Your task to perform on an android device: empty trash in google photos Image 0: 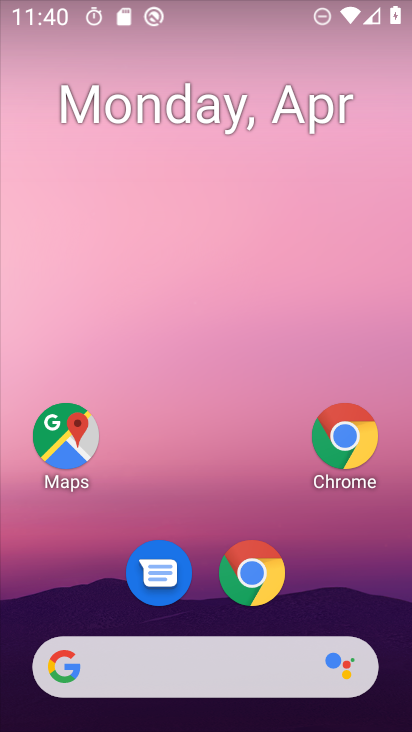
Step 0: drag from (369, 487) to (315, 68)
Your task to perform on an android device: empty trash in google photos Image 1: 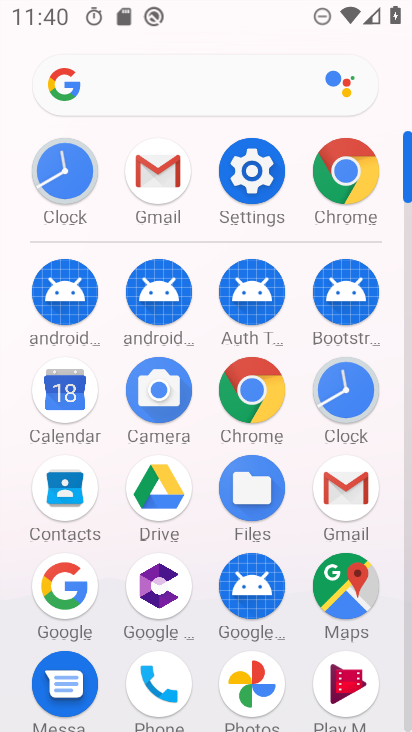
Step 1: click (348, 158)
Your task to perform on an android device: empty trash in google photos Image 2: 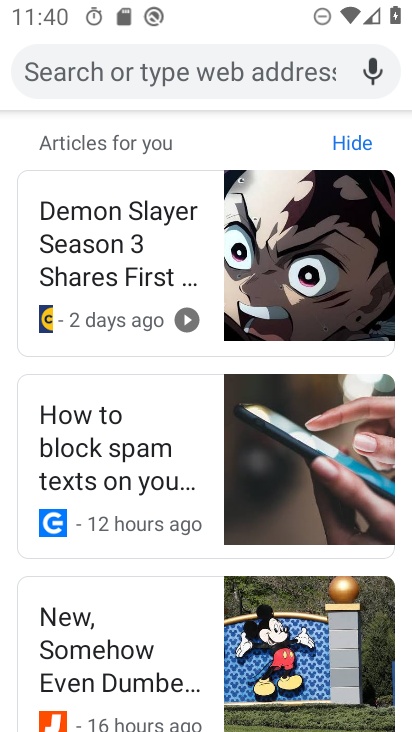
Step 2: press back button
Your task to perform on an android device: empty trash in google photos Image 3: 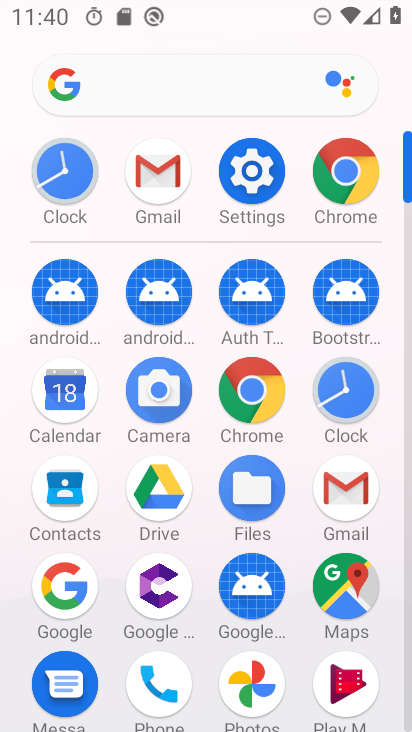
Step 3: click (262, 673)
Your task to perform on an android device: empty trash in google photos Image 4: 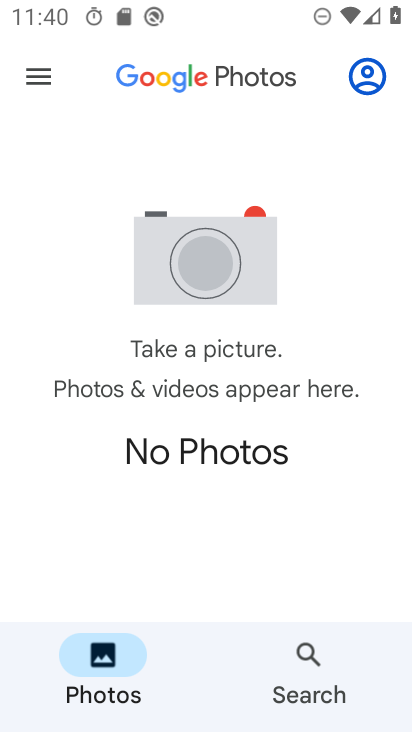
Step 4: click (26, 103)
Your task to perform on an android device: empty trash in google photos Image 5: 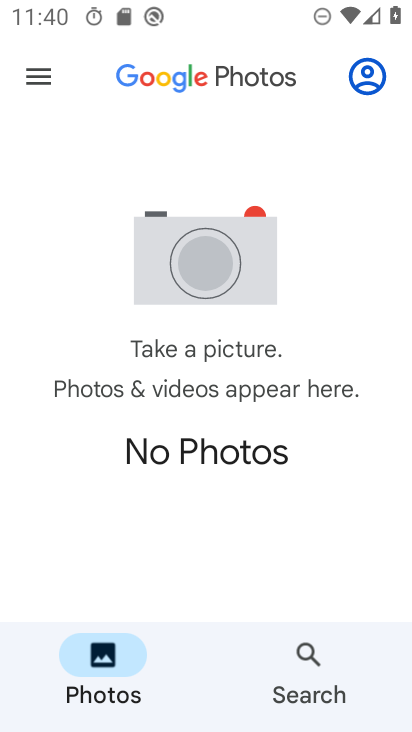
Step 5: click (30, 81)
Your task to perform on an android device: empty trash in google photos Image 6: 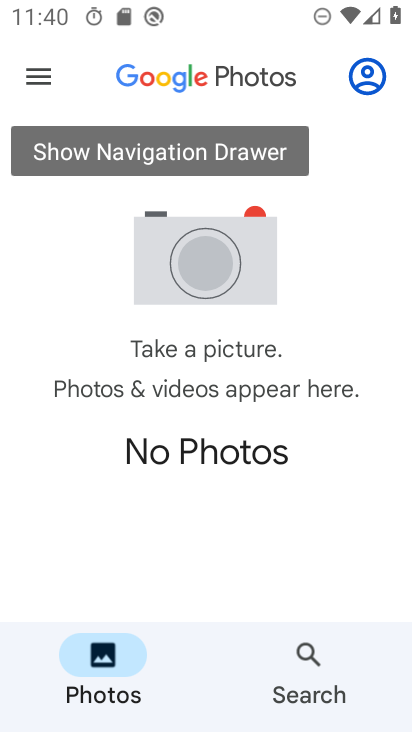
Step 6: click (30, 81)
Your task to perform on an android device: empty trash in google photos Image 7: 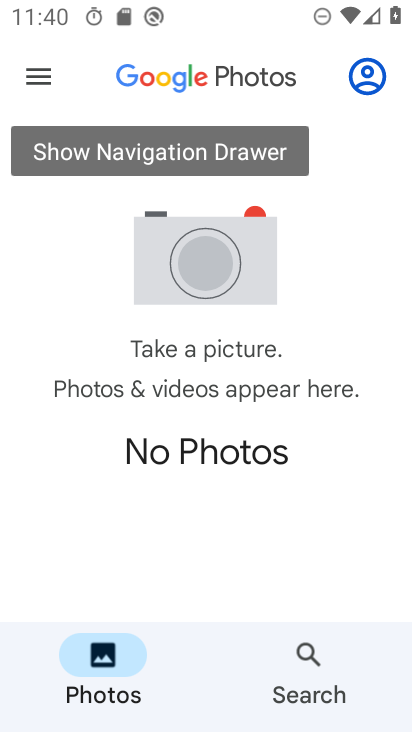
Step 7: click (30, 81)
Your task to perform on an android device: empty trash in google photos Image 8: 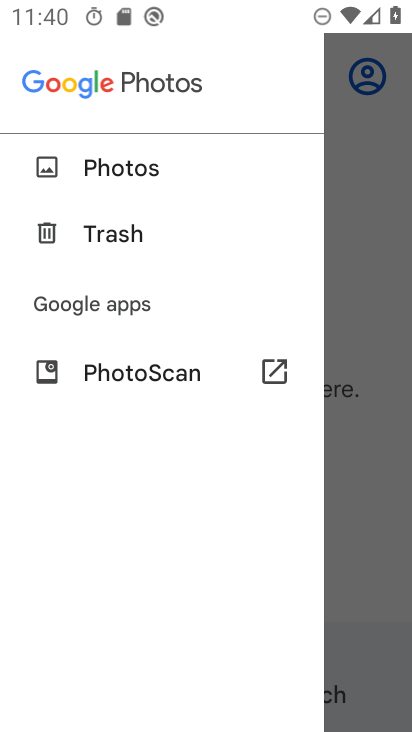
Step 8: click (112, 231)
Your task to perform on an android device: empty trash in google photos Image 9: 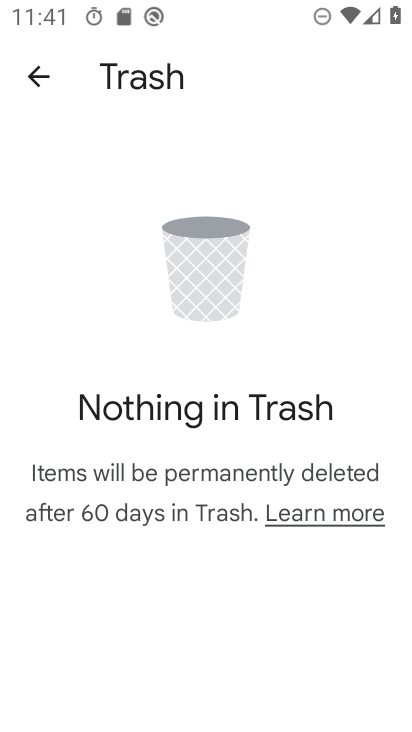
Step 9: task complete